Your task to perform on an android device: Open settings on Google Maps Image 0: 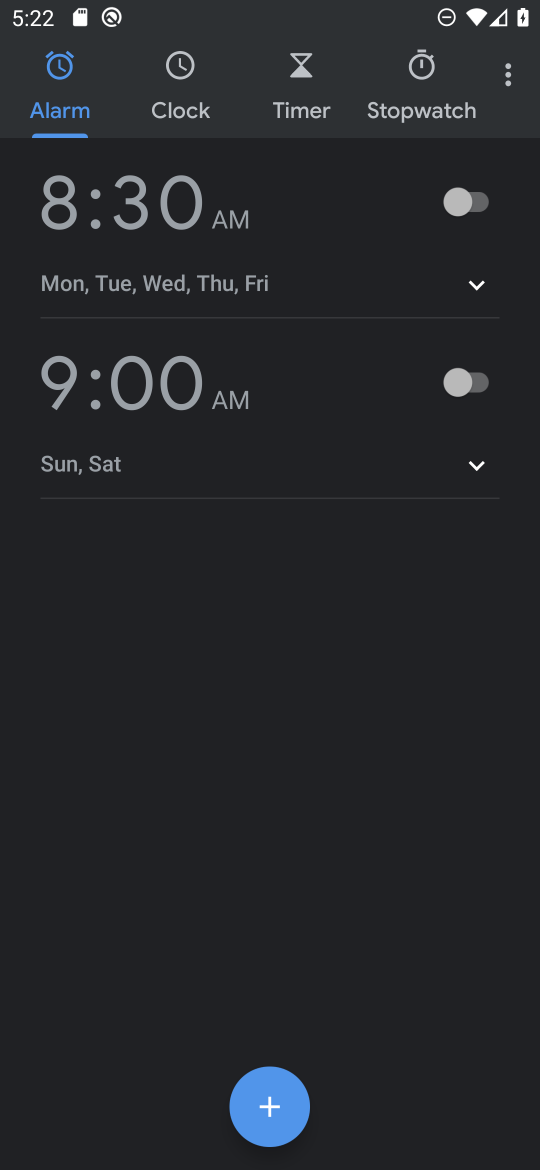
Step 0: press home button
Your task to perform on an android device: Open settings on Google Maps Image 1: 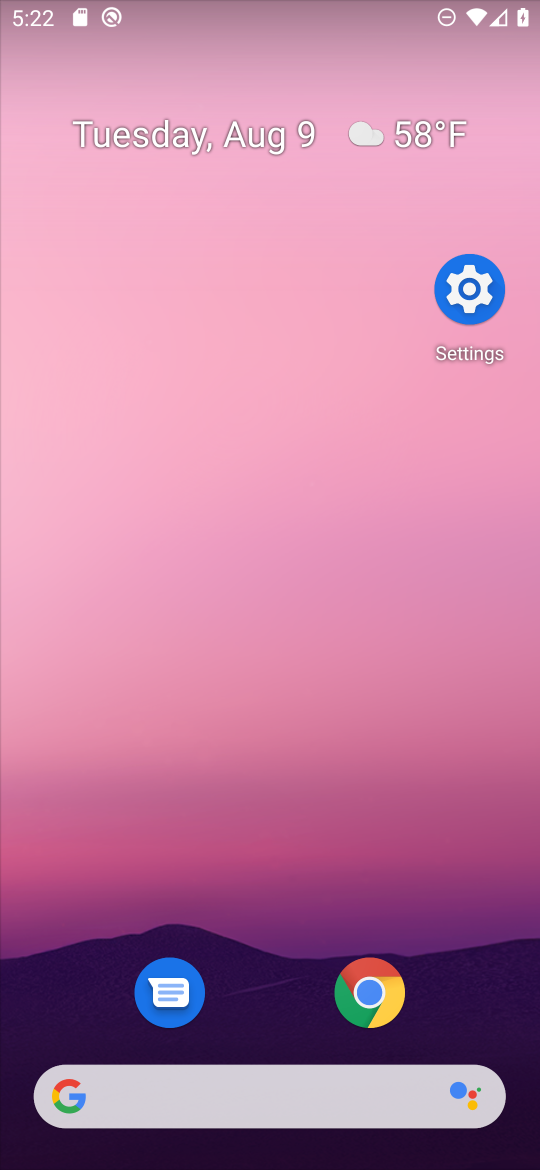
Step 1: drag from (361, 1082) to (300, 80)
Your task to perform on an android device: Open settings on Google Maps Image 2: 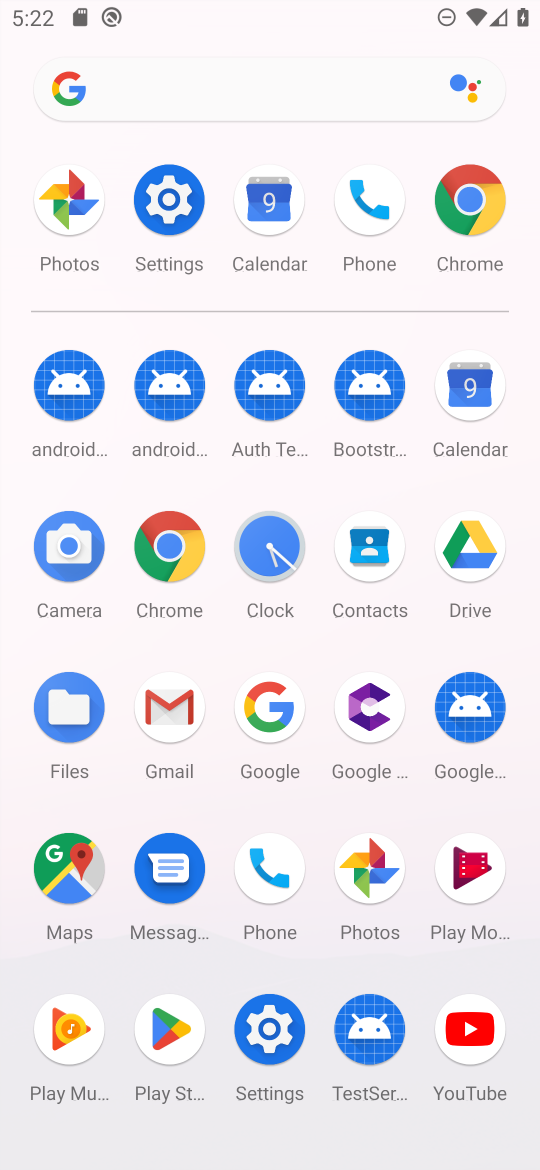
Step 2: click (77, 870)
Your task to perform on an android device: Open settings on Google Maps Image 3: 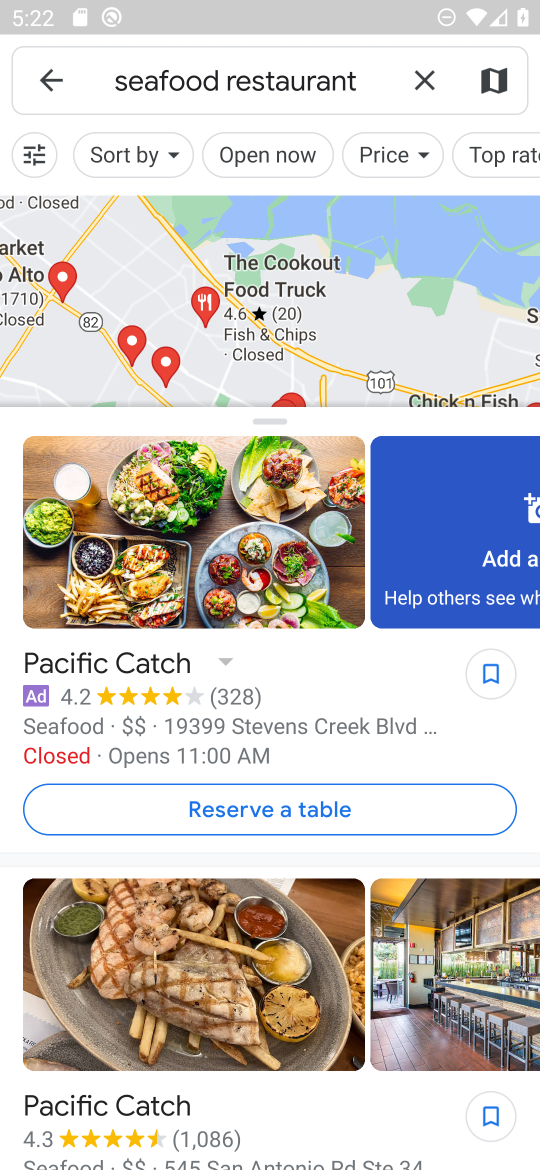
Step 3: press back button
Your task to perform on an android device: Open settings on Google Maps Image 4: 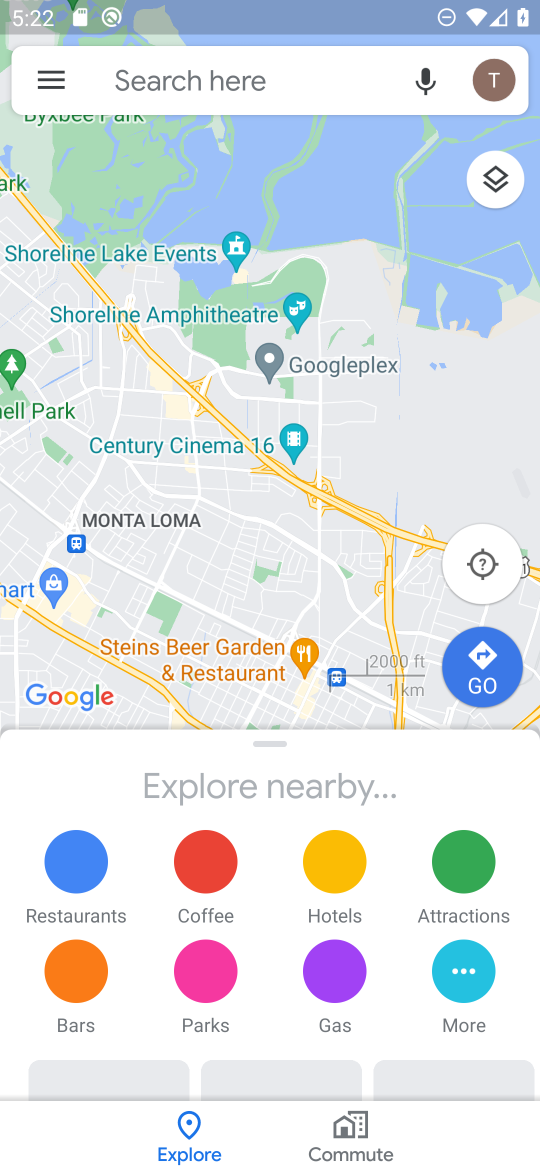
Step 4: click (68, 80)
Your task to perform on an android device: Open settings on Google Maps Image 5: 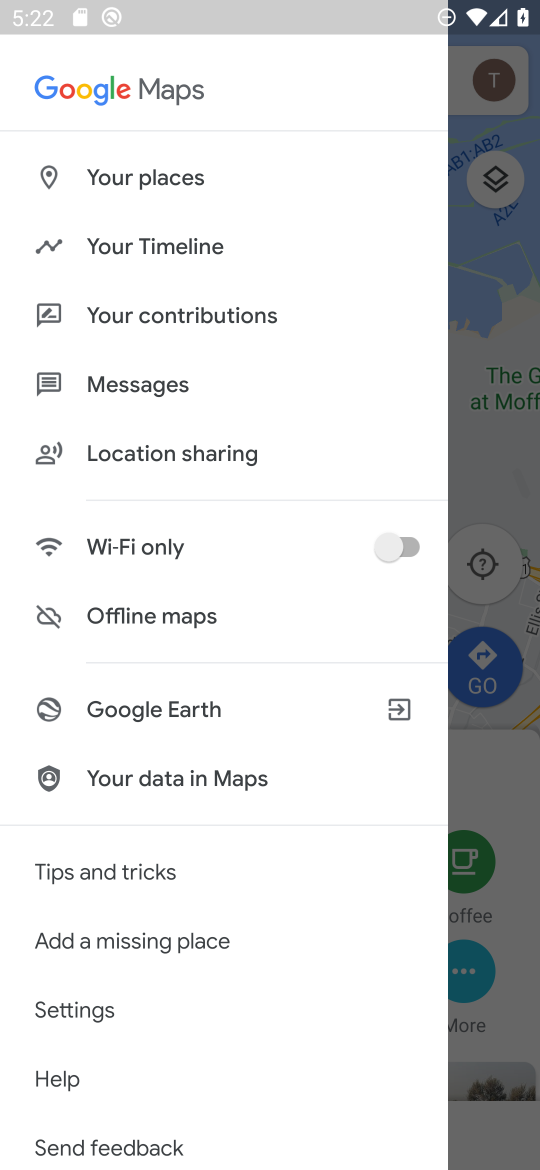
Step 5: click (132, 244)
Your task to perform on an android device: Open settings on Google Maps Image 6: 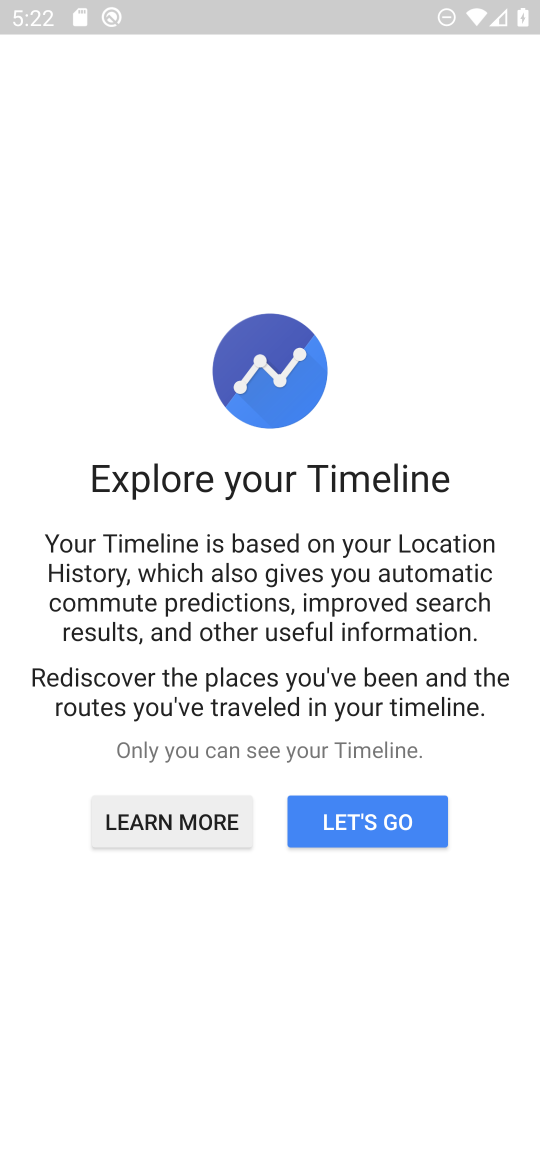
Step 6: click (379, 809)
Your task to perform on an android device: Open settings on Google Maps Image 7: 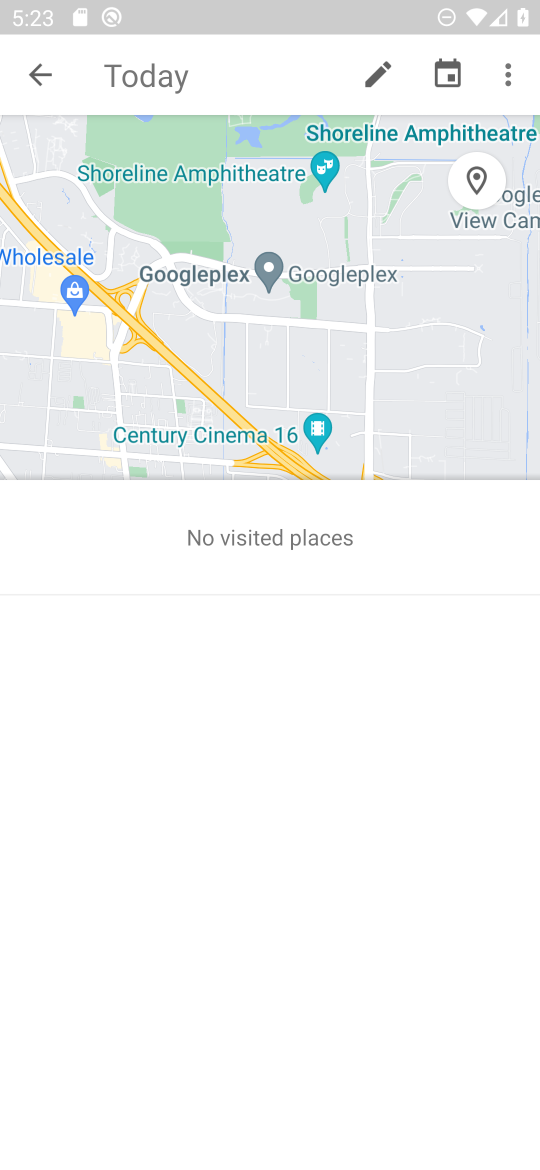
Step 7: click (493, 66)
Your task to perform on an android device: Open settings on Google Maps Image 8: 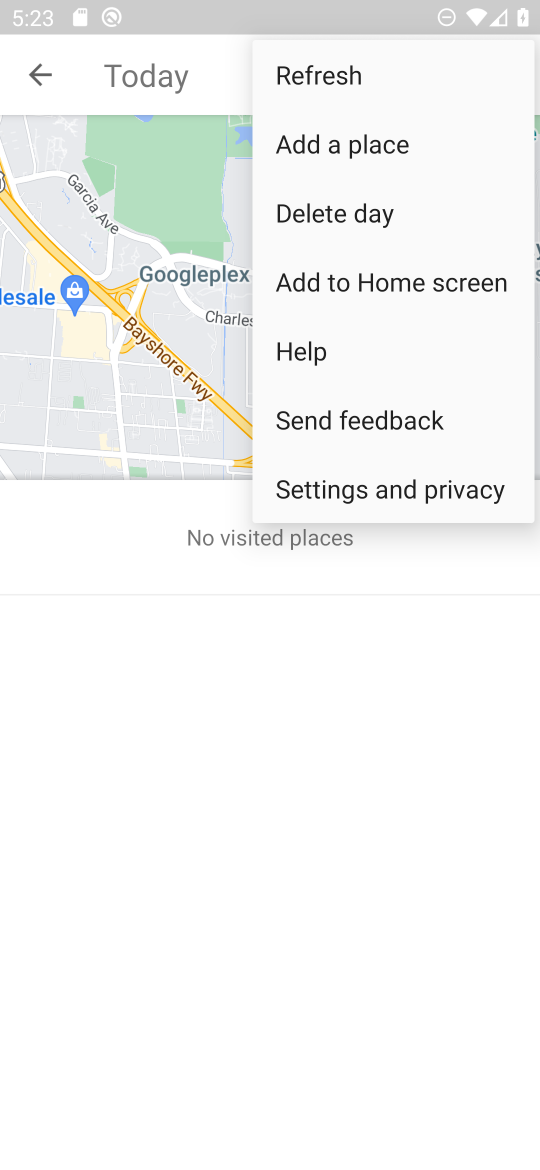
Step 8: click (369, 475)
Your task to perform on an android device: Open settings on Google Maps Image 9: 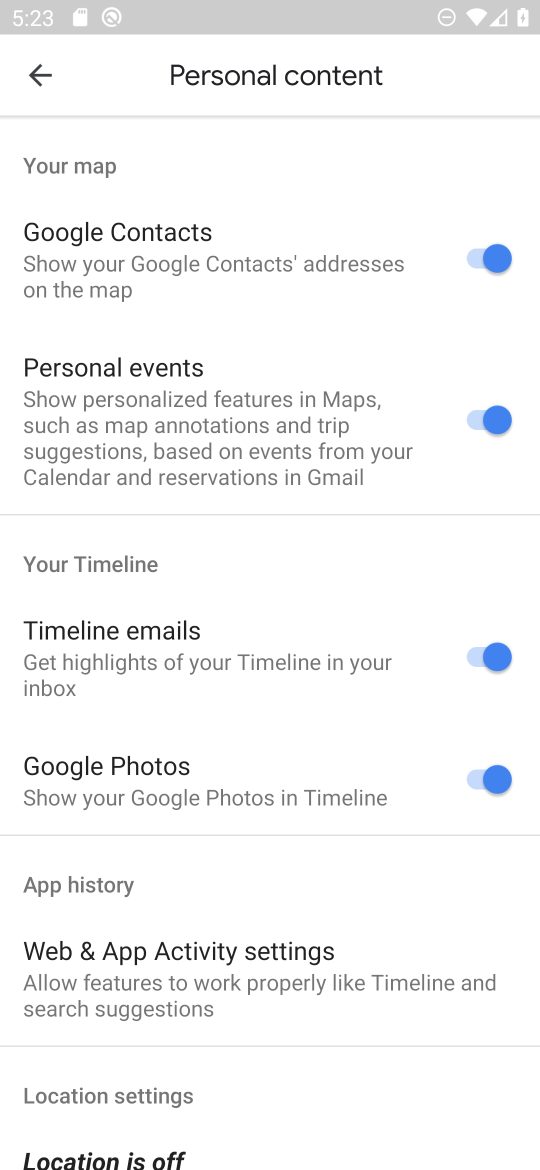
Step 9: task complete